Your task to perform on an android device: Open the calendar app, open the side menu, and click the "Day" option Image 0: 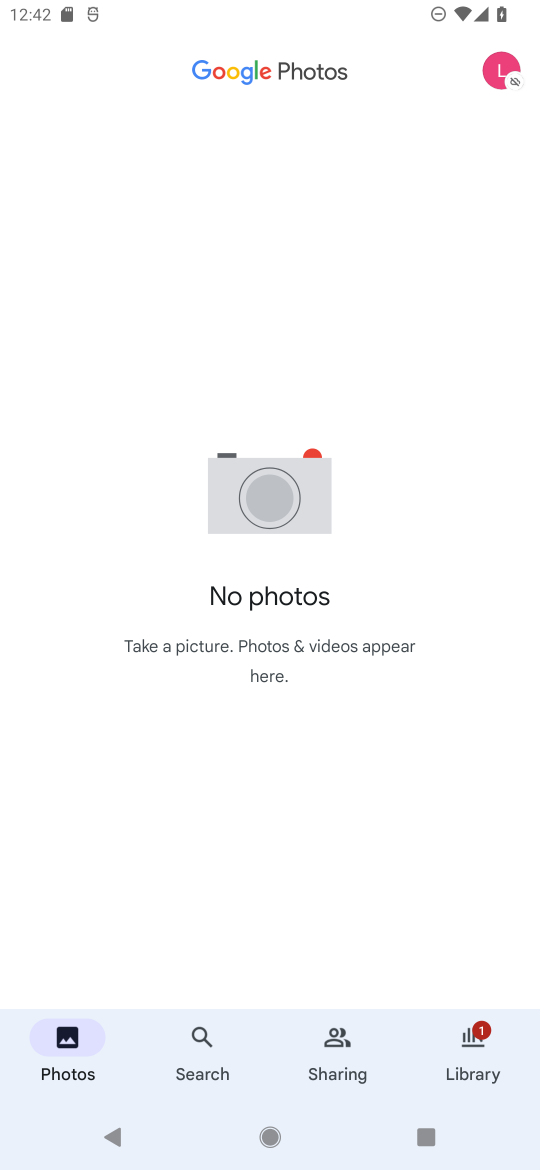
Step 0: press home button
Your task to perform on an android device: Open the calendar app, open the side menu, and click the "Day" option Image 1: 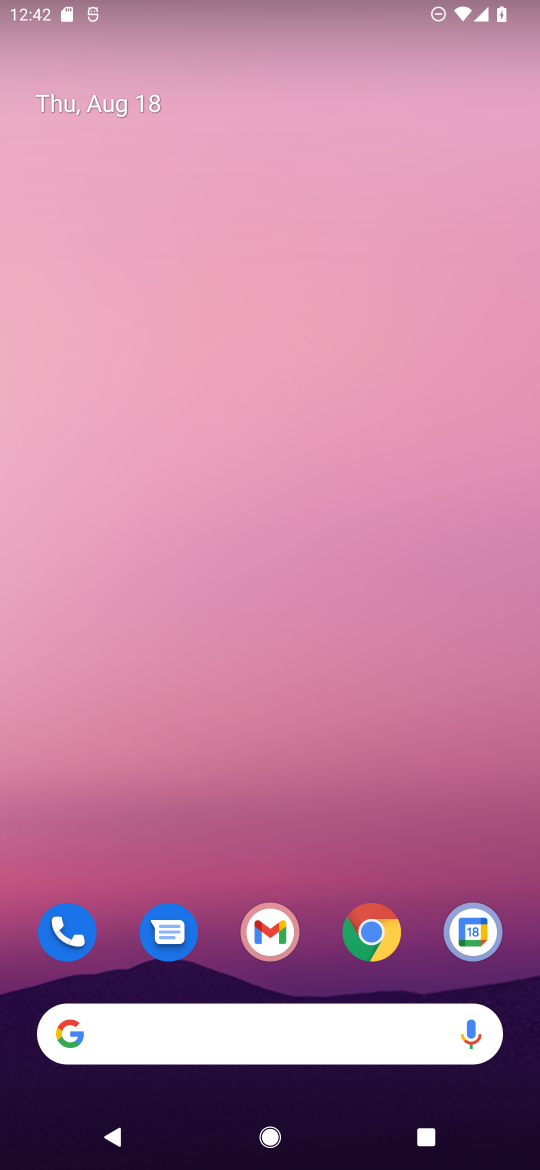
Step 1: drag from (221, 854) to (214, 251)
Your task to perform on an android device: Open the calendar app, open the side menu, and click the "Day" option Image 2: 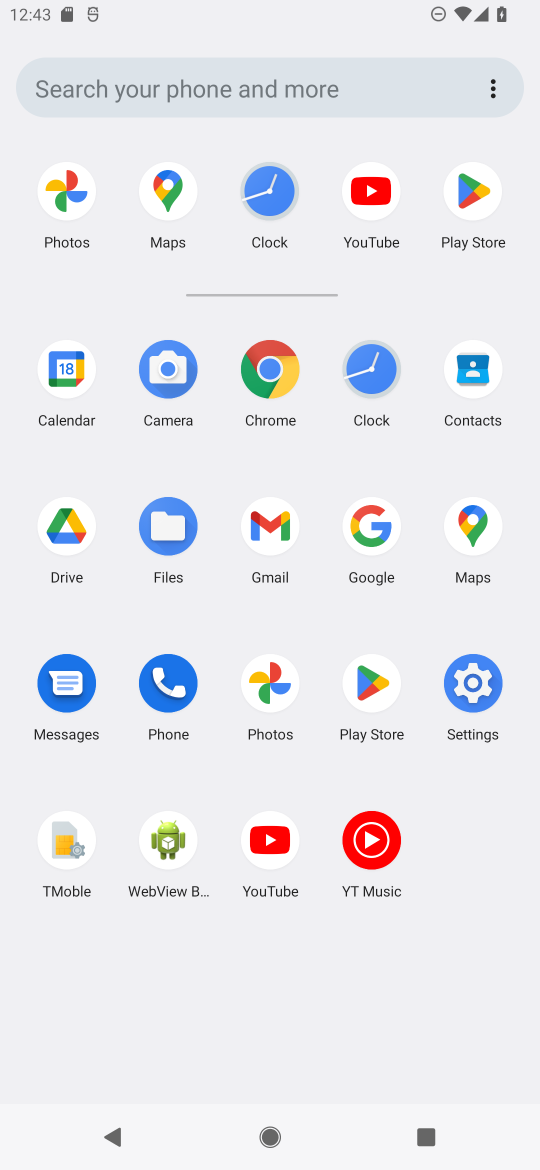
Step 2: click (66, 362)
Your task to perform on an android device: Open the calendar app, open the side menu, and click the "Day" option Image 3: 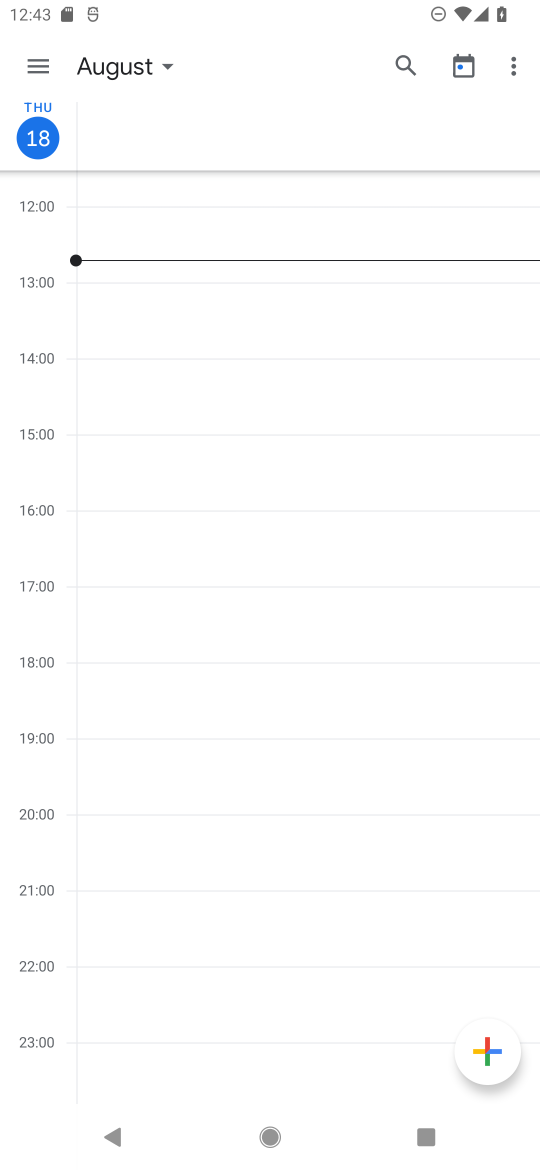
Step 3: click (39, 58)
Your task to perform on an android device: Open the calendar app, open the side menu, and click the "Day" option Image 4: 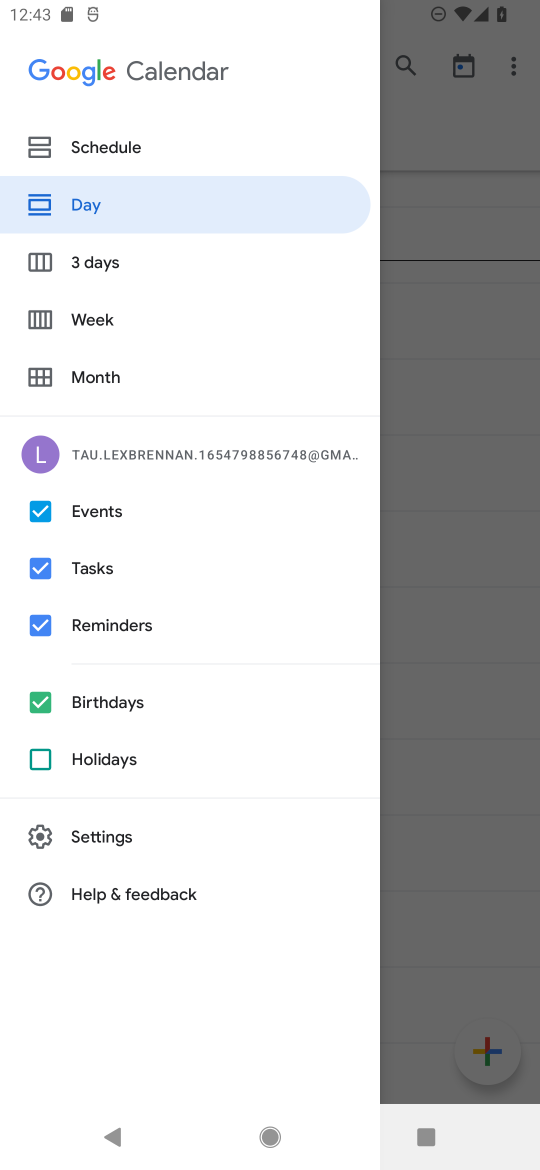
Step 4: click (112, 194)
Your task to perform on an android device: Open the calendar app, open the side menu, and click the "Day" option Image 5: 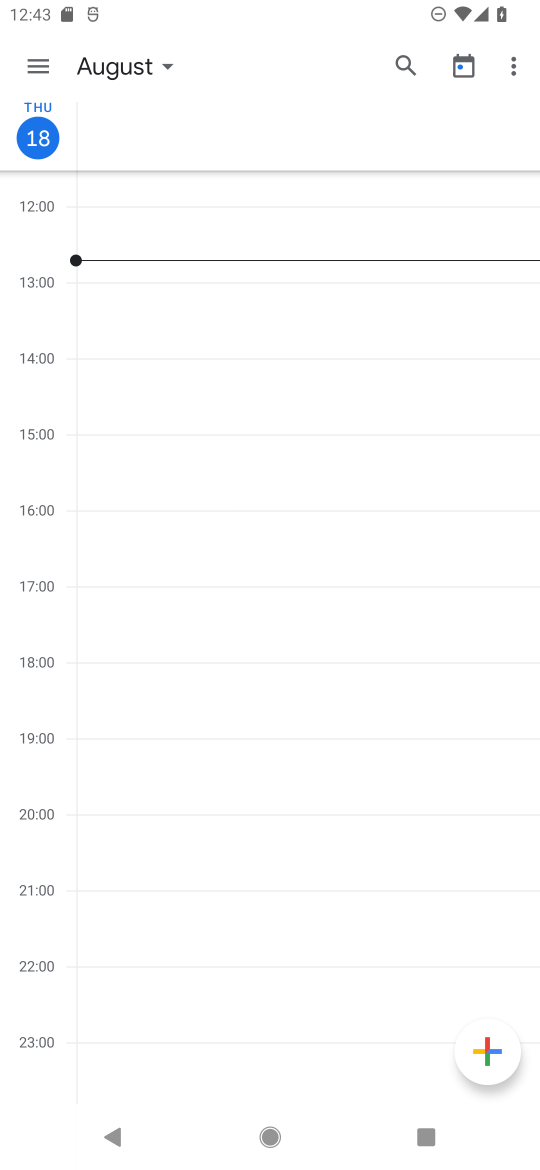
Step 5: task complete